Your task to perform on an android device: turn off translation in the chrome app Image 0: 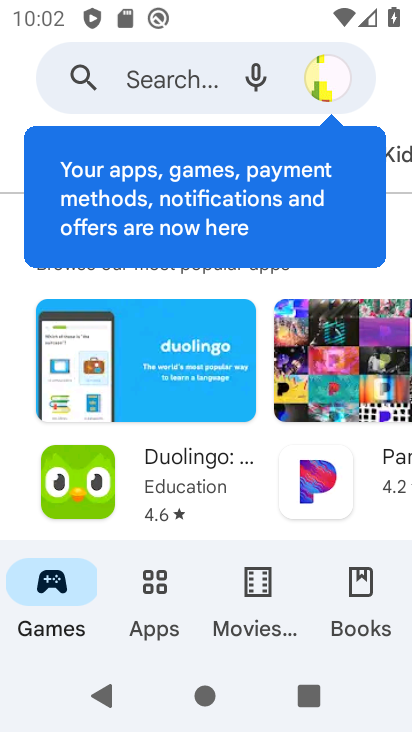
Step 0: press home button
Your task to perform on an android device: turn off translation in the chrome app Image 1: 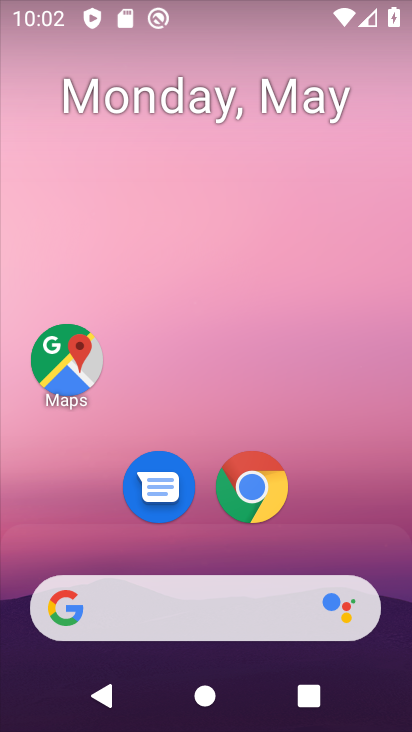
Step 1: click (268, 486)
Your task to perform on an android device: turn off translation in the chrome app Image 2: 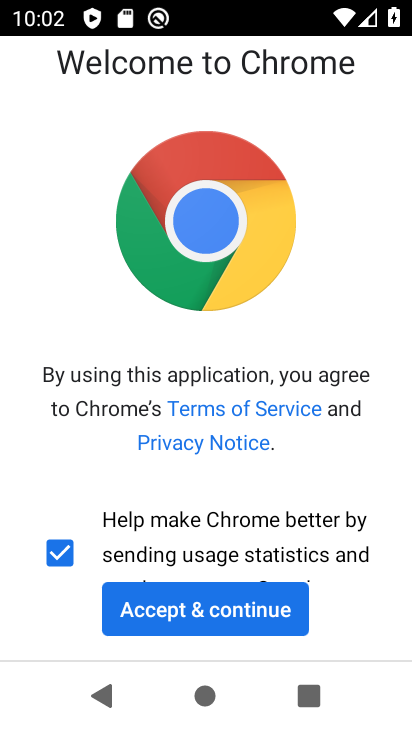
Step 2: click (201, 622)
Your task to perform on an android device: turn off translation in the chrome app Image 3: 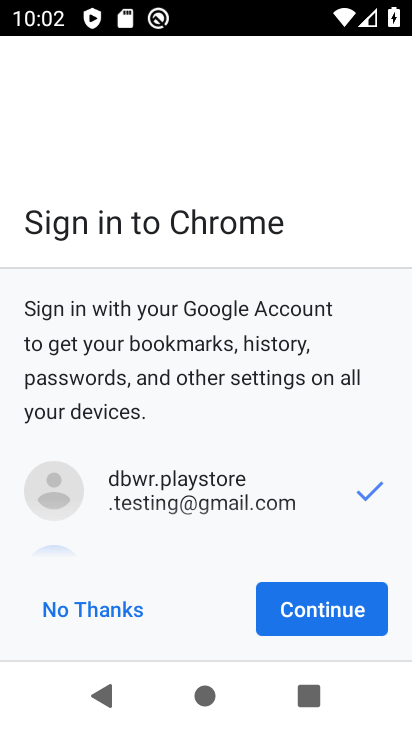
Step 3: click (260, 621)
Your task to perform on an android device: turn off translation in the chrome app Image 4: 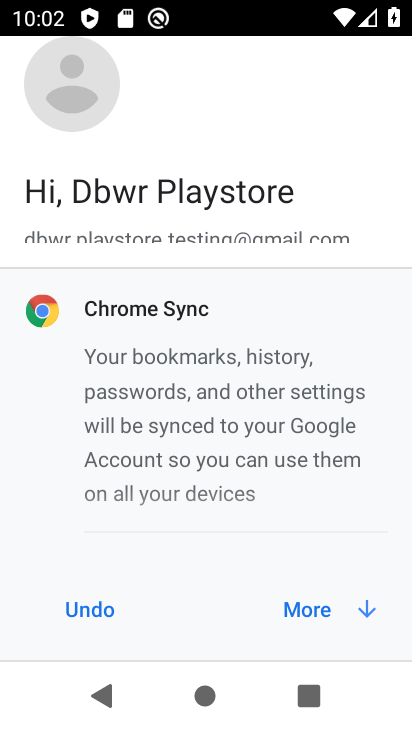
Step 4: click (301, 619)
Your task to perform on an android device: turn off translation in the chrome app Image 5: 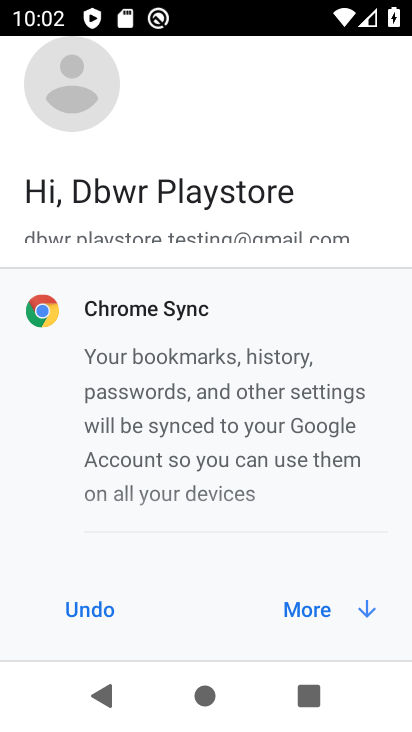
Step 5: click (301, 619)
Your task to perform on an android device: turn off translation in the chrome app Image 6: 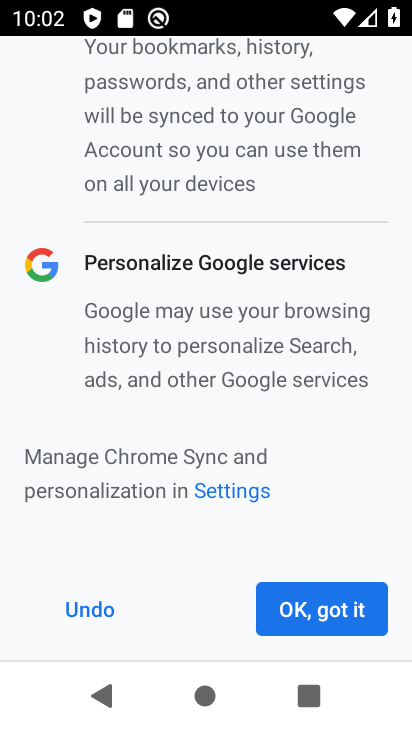
Step 6: click (301, 619)
Your task to perform on an android device: turn off translation in the chrome app Image 7: 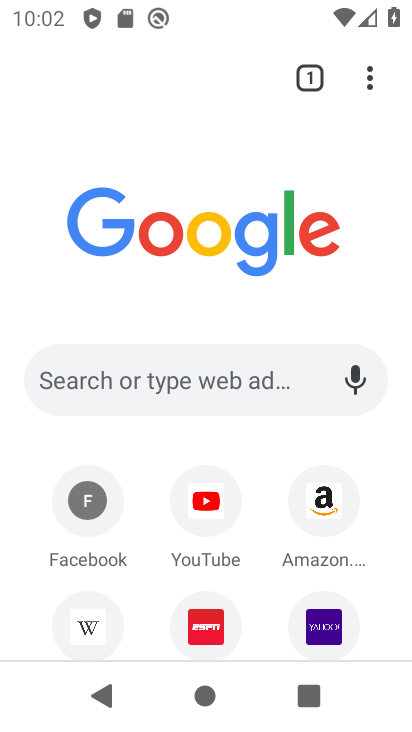
Step 7: click (371, 85)
Your task to perform on an android device: turn off translation in the chrome app Image 8: 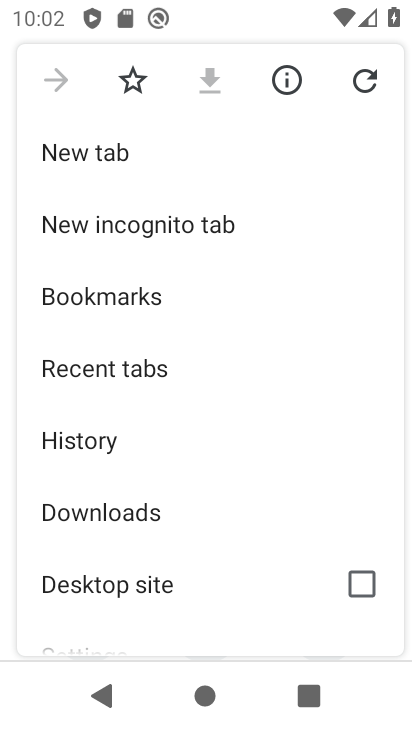
Step 8: drag from (153, 482) to (222, 154)
Your task to perform on an android device: turn off translation in the chrome app Image 9: 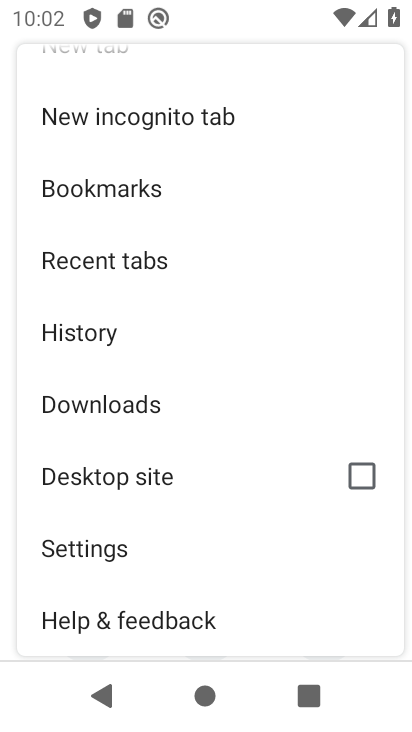
Step 9: click (81, 554)
Your task to perform on an android device: turn off translation in the chrome app Image 10: 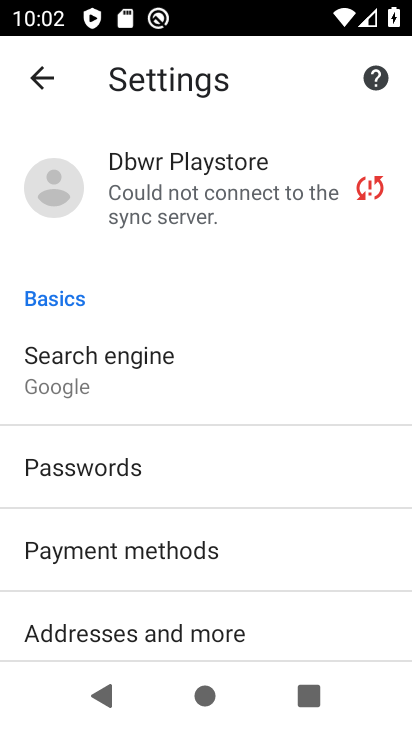
Step 10: drag from (137, 454) to (218, 87)
Your task to perform on an android device: turn off translation in the chrome app Image 11: 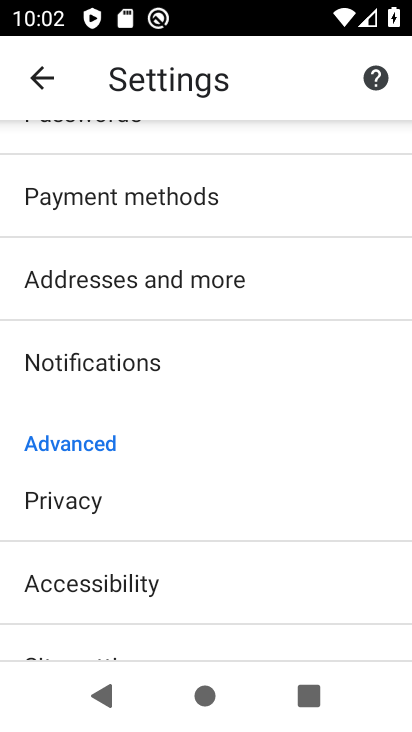
Step 11: drag from (172, 518) to (212, 72)
Your task to perform on an android device: turn off translation in the chrome app Image 12: 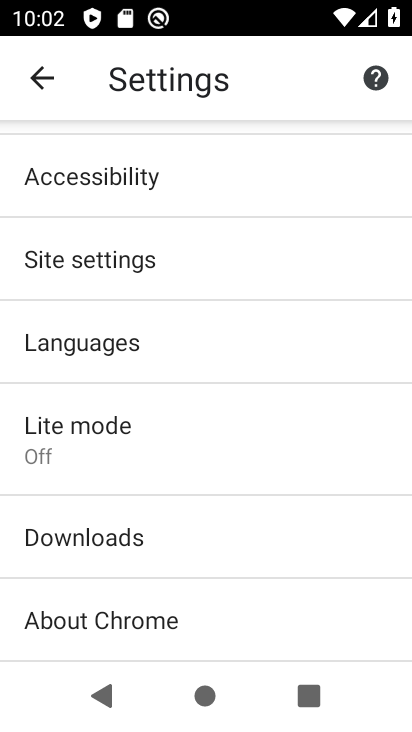
Step 12: click (120, 353)
Your task to perform on an android device: turn off translation in the chrome app Image 13: 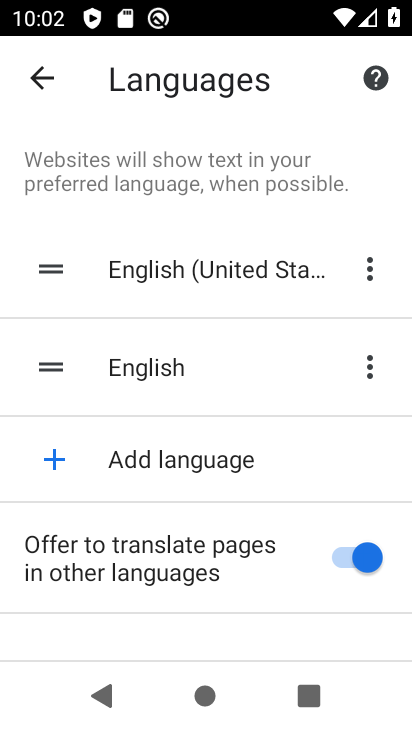
Step 13: click (352, 564)
Your task to perform on an android device: turn off translation in the chrome app Image 14: 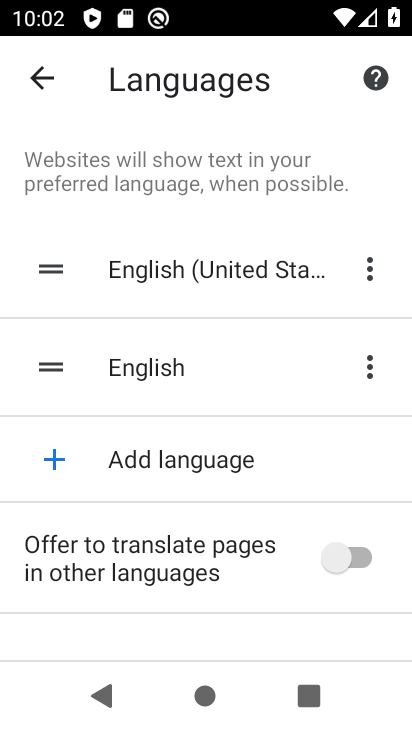
Step 14: task complete